Your task to perform on an android device: Open eBay Image 0: 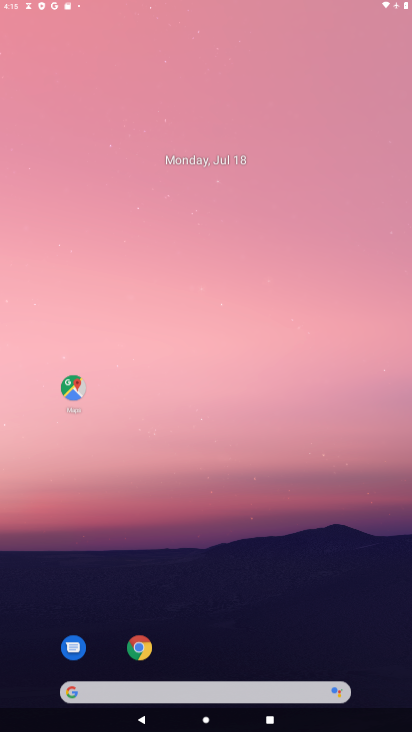
Step 0: press home button
Your task to perform on an android device: Open eBay Image 1: 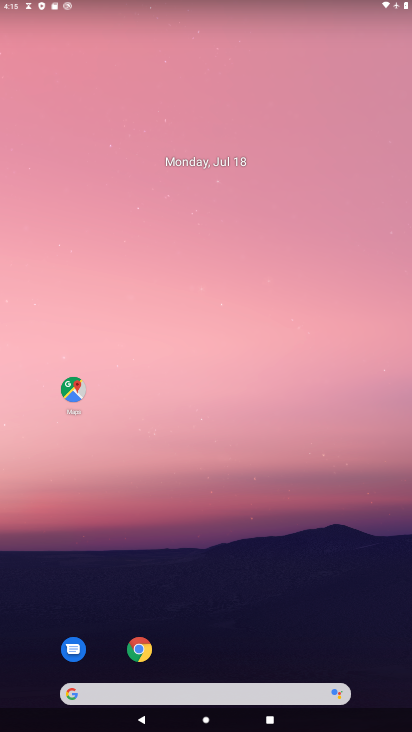
Step 1: click (68, 696)
Your task to perform on an android device: Open eBay Image 2: 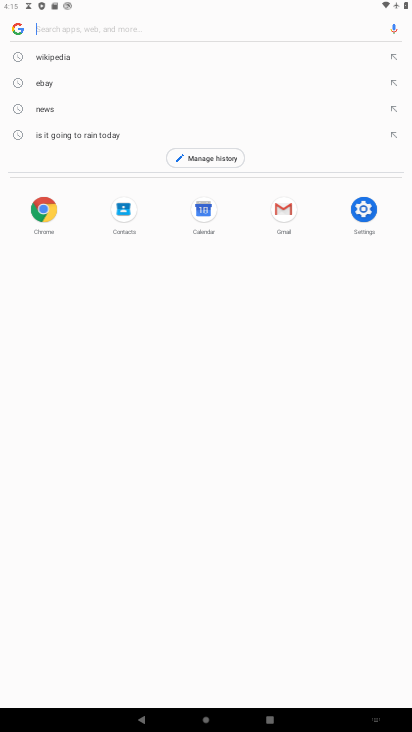
Step 2: click (49, 84)
Your task to perform on an android device: Open eBay Image 3: 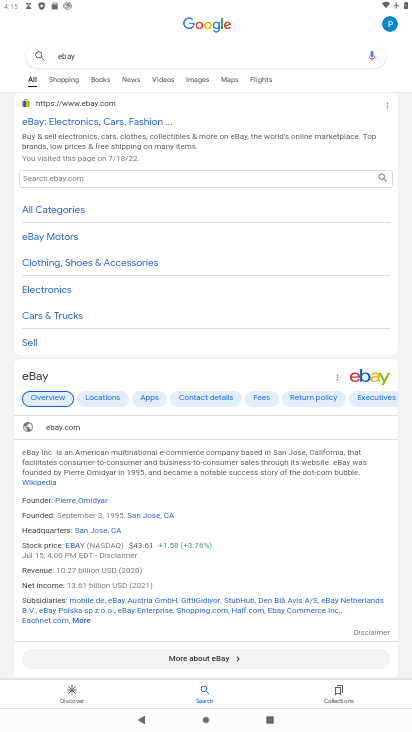
Step 3: click (107, 123)
Your task to perform on an android device: Open eBay Image 4: 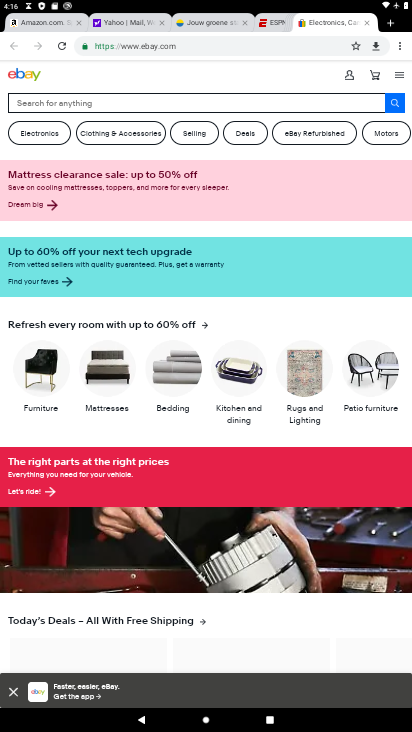
Step 4: task complete